Your task to perform on an android device: change the clock style Image 0: 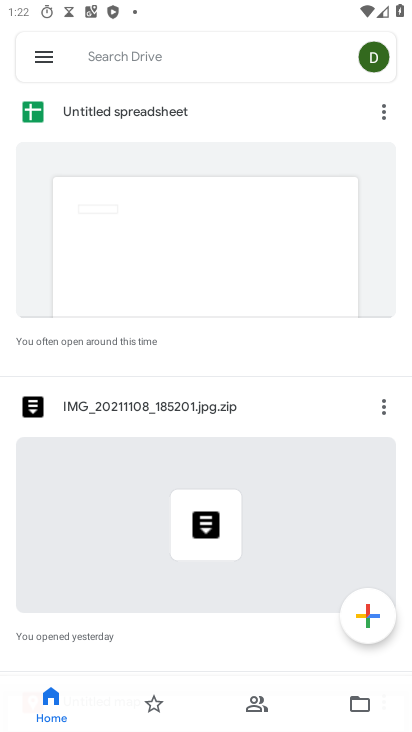
Step 0: press home button
Your task to perform on an android device: change the clock style Image 1: 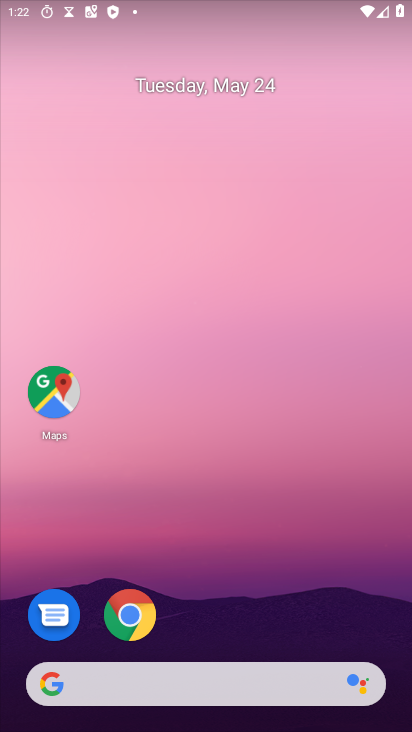
Step 1: drag from (219, 635) to (212, 21)
Your task to perform on an android device: change the clock style Image 2: 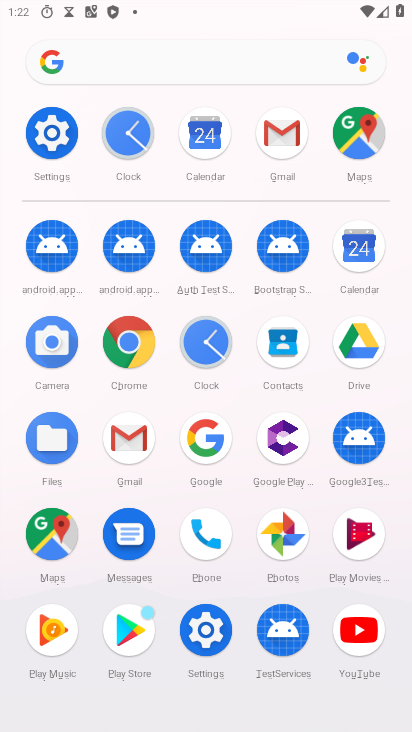
Step 2: click (203, 336)
Your task to perform on an android device: change the clock style Image 3: 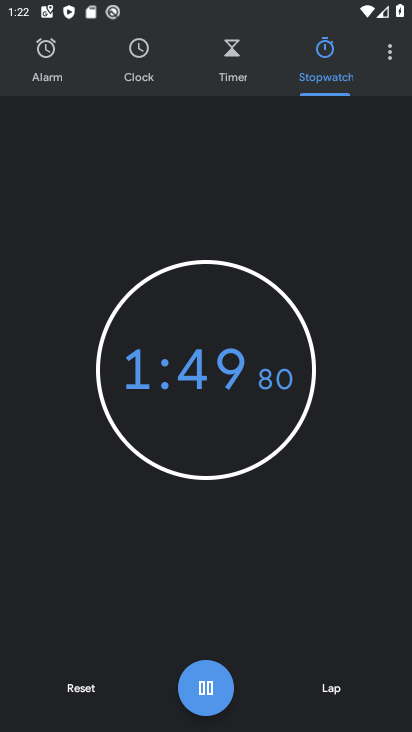
Step 3: click (71, 679)
Your task to perform on an android device: change the clock style Image 4: 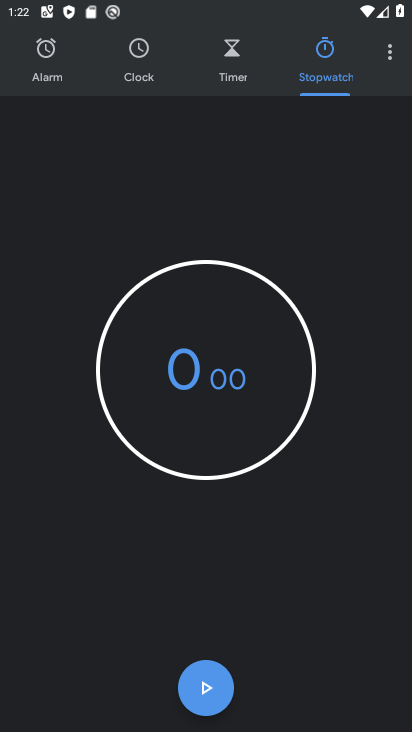
Step 4: click (391, 52)
Your task to perform on an android device: change the clock style Image 5: 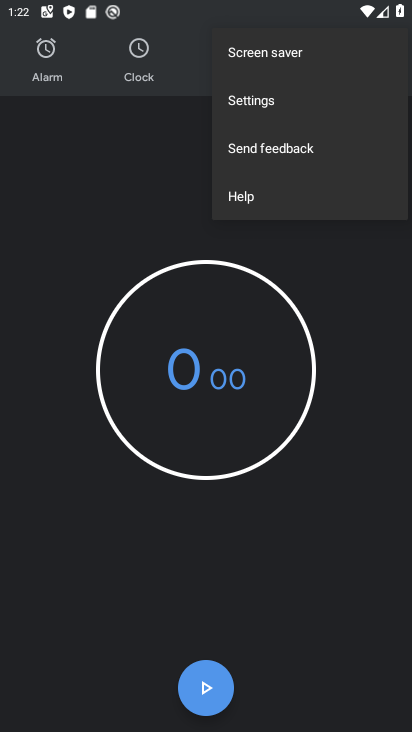
Step 5: click (281, 94)
Your task to perform on an android device: change the clock style Image 6: 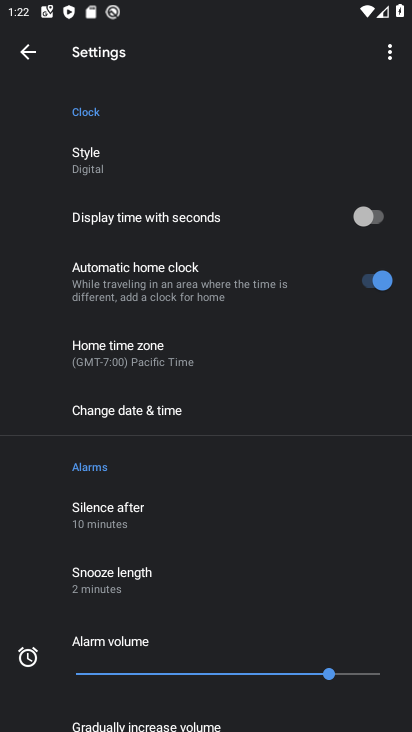
Step 6: click (122, 159)
Your task to perform on an android device: change the clock style Image 7: 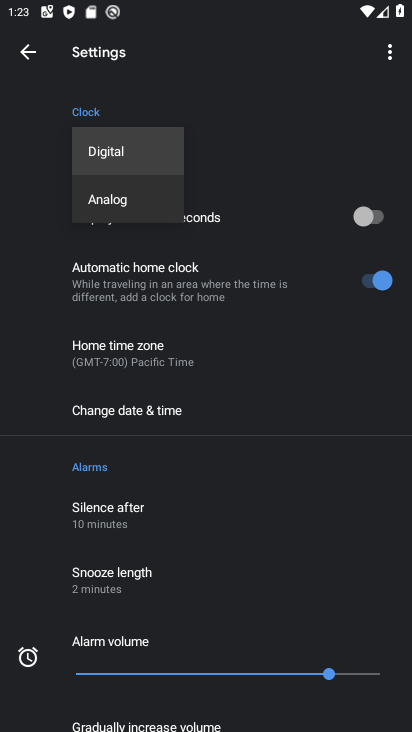
Step 7: click (134, 201)
Your task to perform on an android device: change the clock style Image 8: 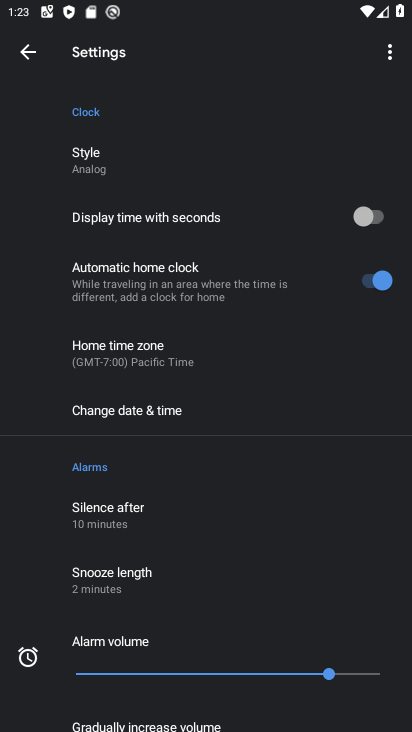
Step 8: task complete